Your task to perform on an android device: Toggle the flashlight Image 0: 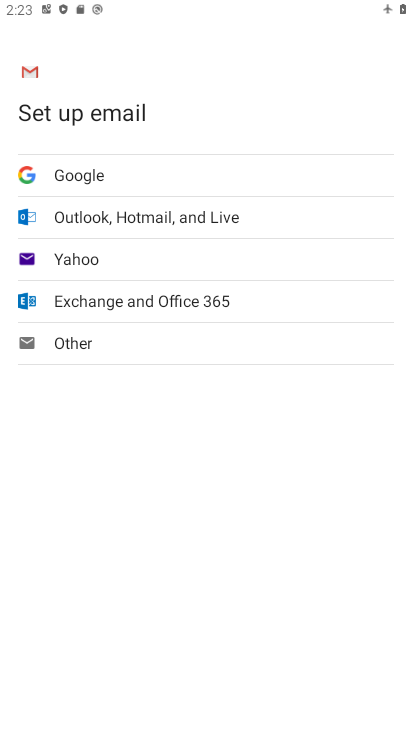
Step 0: press home button
Your task to perform on an android device: Toggle the flashlight Image 1: 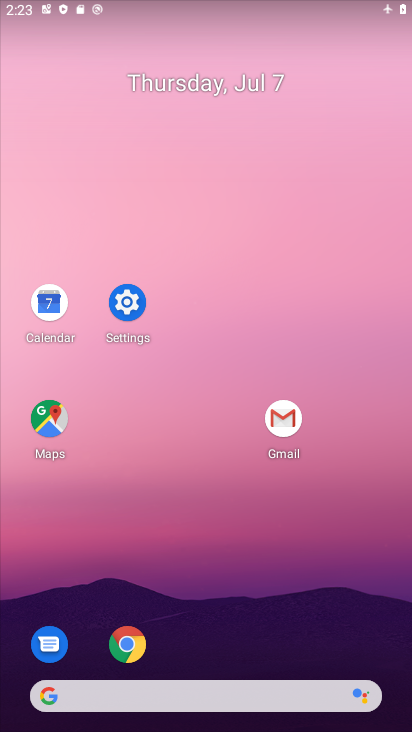
Step 1: drag from (394, 688) to (314, 42)
Your task to perform on an android device: Toggle the flashlight Image 2: 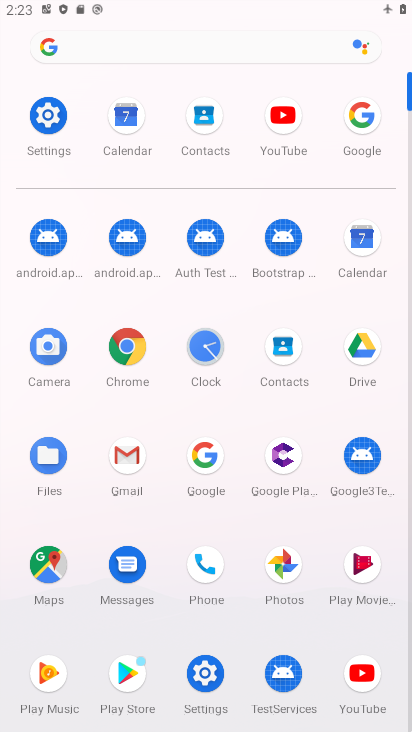
Step 2: click (55, 122)
Your task to perform on an android device: Toggle the flashlight Image 3: 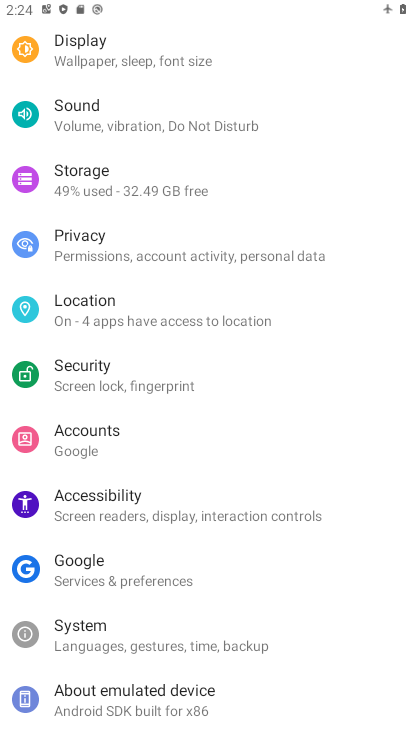
Step 3: click (93, 50)
Your task to perform on an android device: Toggle the flashlight Image 4: 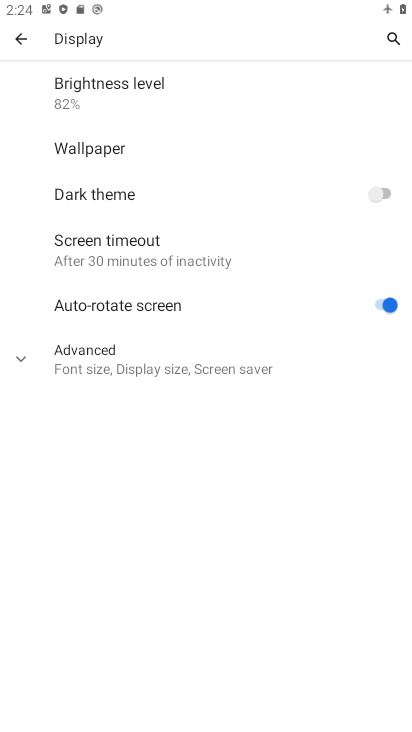
Step 4: task complete